Your task to perform on an android device: View the shopping cart on target. Add "sony triple a" to the cart on target Image 0: 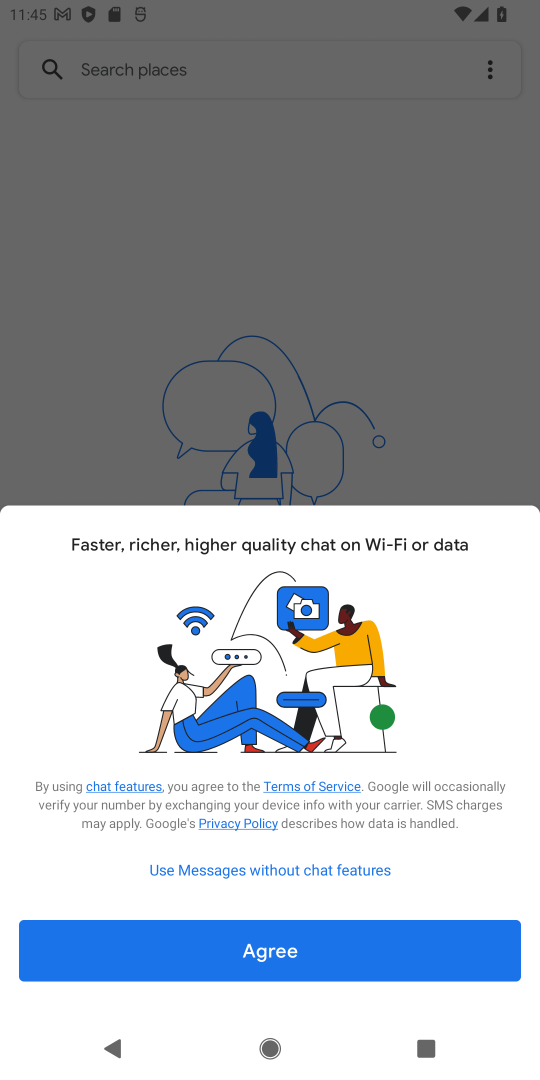
Step 0: press home button
Your task to perform on an android device: View the shopping cart on target. Add "sony triple a" to the cart on target Image 1: 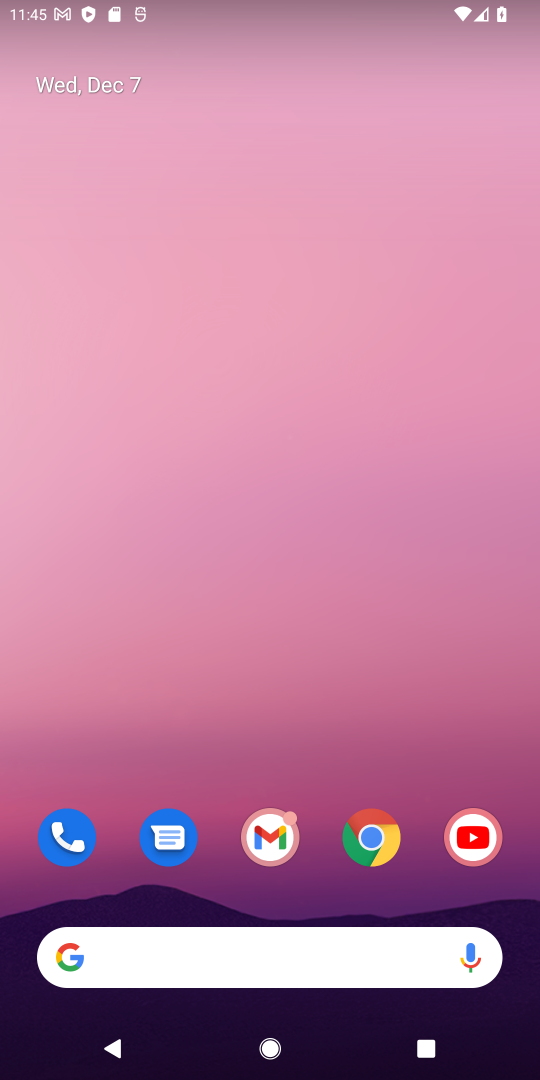
Step 1: click (358, 843)
Your task to perform on an android device: View the shopping cart on target. Add "sony triple a" to the cart on target Image 2: 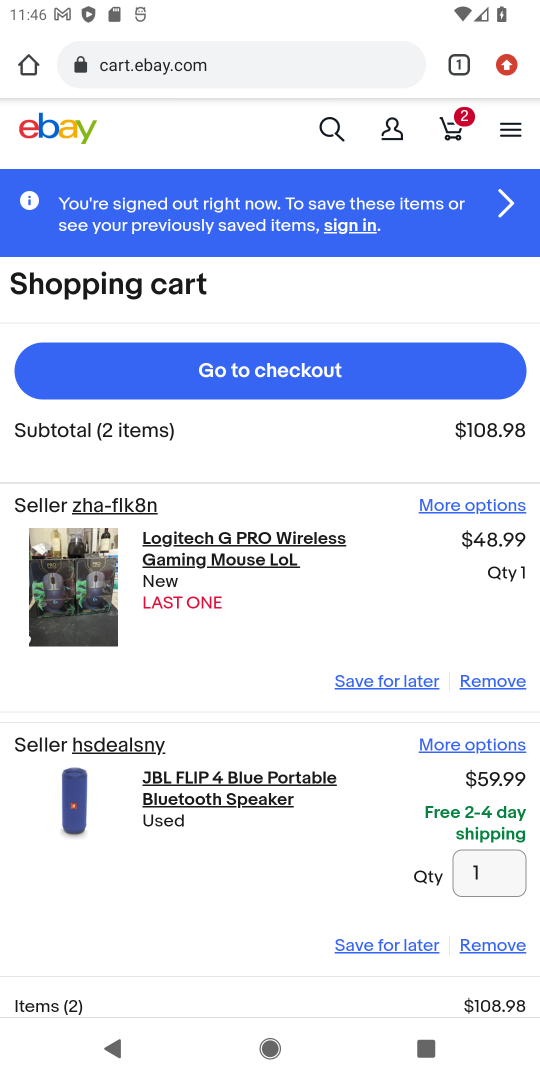
Step 2: click (275, 59)
Your task to perform on an android device: View the shopping cart on target. Add "sony triple a" to the cart on target Image 3: 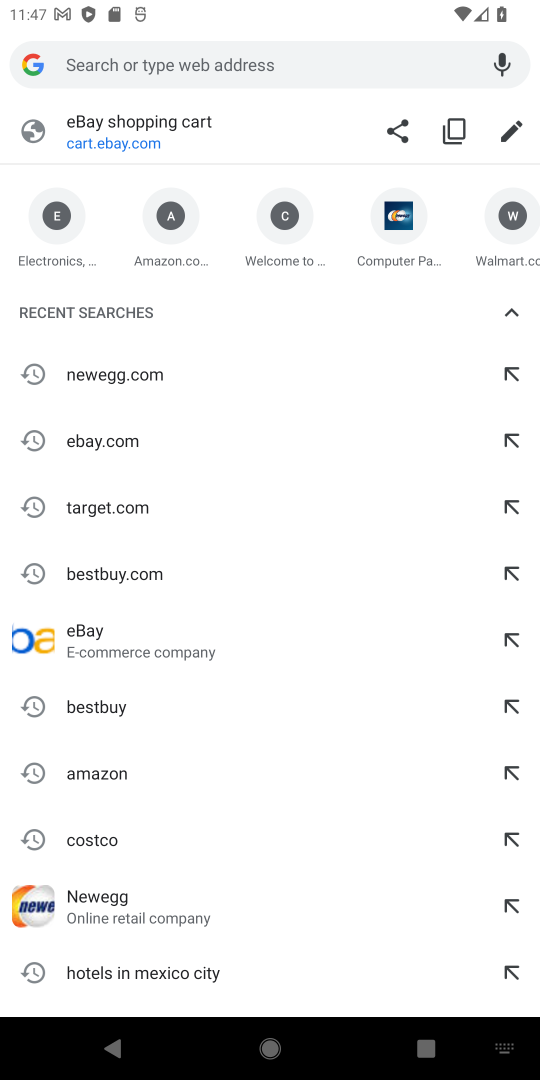
Step 3: click (89, 504)
Your task to perform on an android device: View the shopping cart on target. Add "sony triple a" to the cart on target Image 4: 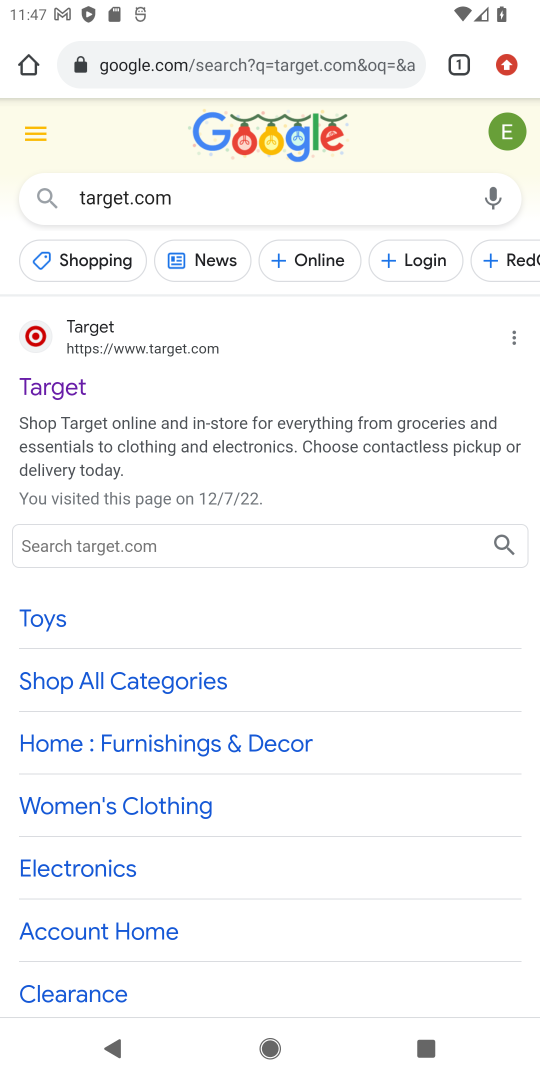
Step 4: drag from (156, 351) to (75, 344)
Your task to perform on an android device: View the shopping cart on target. Add "sony triple a" to the cart on target Image 5: 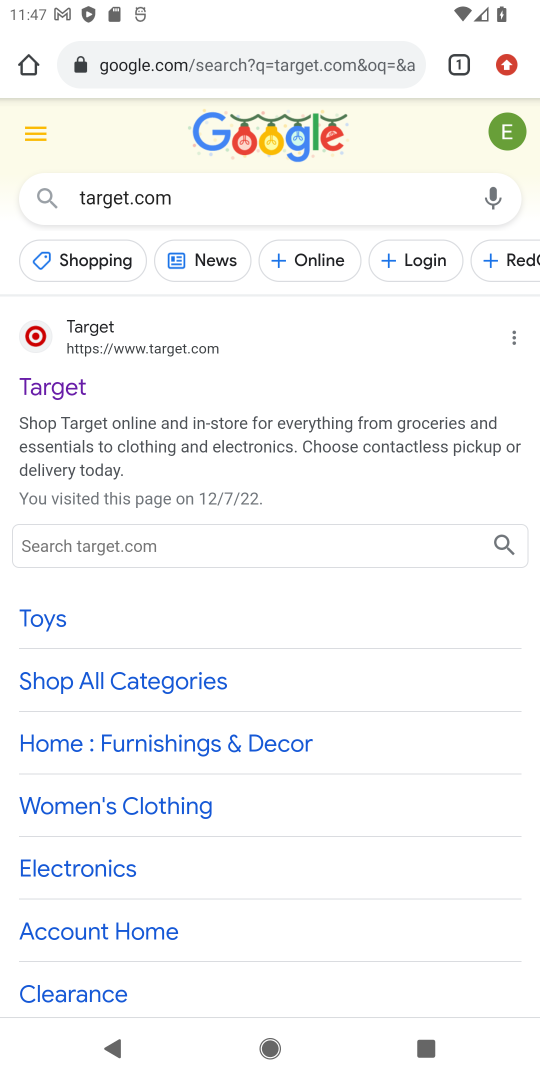
Step 5: click (170, 359)
Your task to perform on an android device: View the shopping cart on target. Add "sony triple a" to the cart on target Image 6: 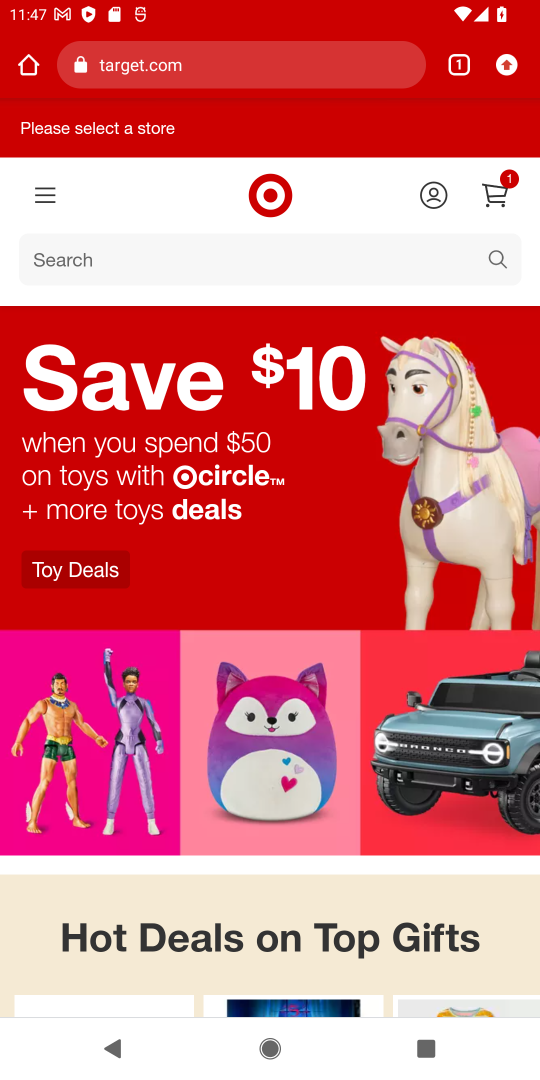
Step 6: click (505, 197)
Your task to perform on an android device: View the shopping cart on target. Add "sony triple a" to the cart on target Image 7: 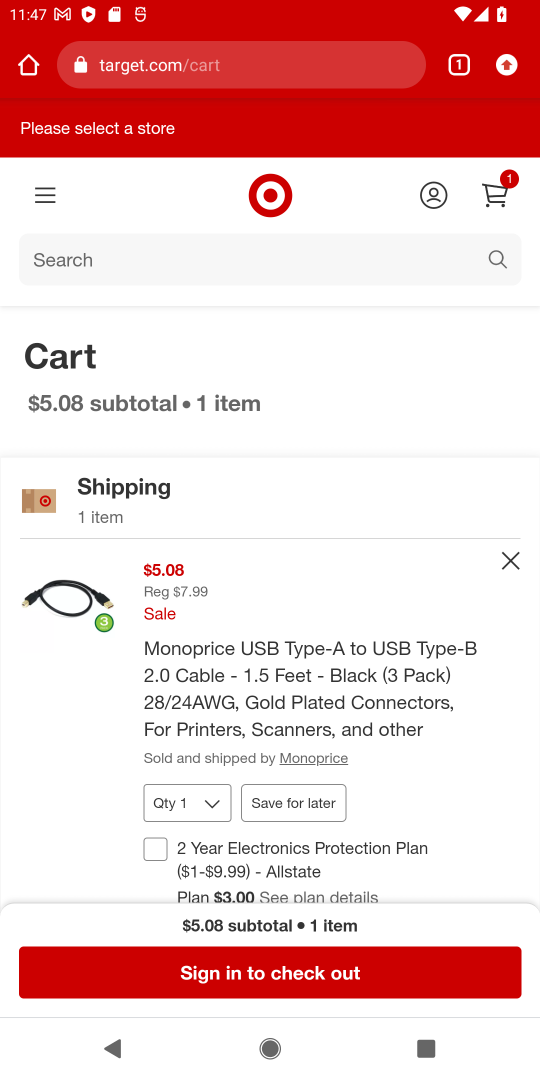
Step 7: click (496, 266)
Your task to perform on an android device: View the shopping cart on target. Add "sony triple a" to the cart on target Image 8: 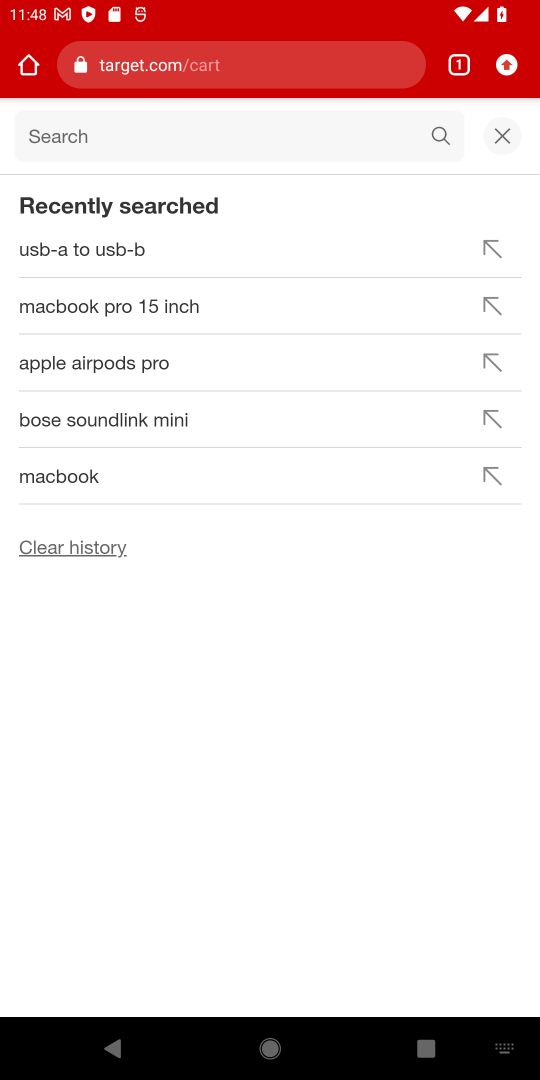
Step 8: type "sony triple a"
Your task to perform on an android device: View the shopping cart on target. Add "sony triple a" to the cart on target Image 9: 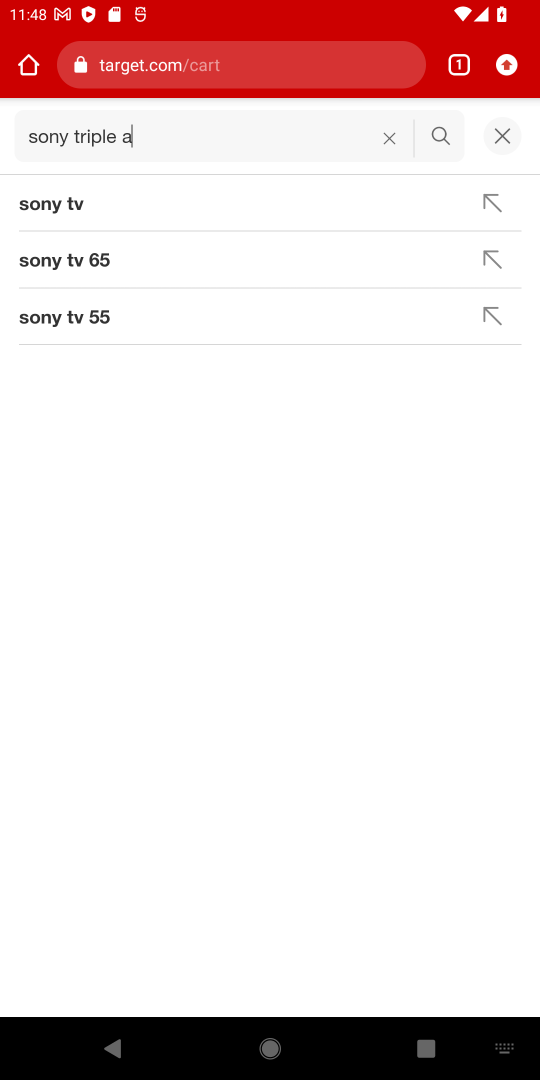
Step 9: click (435, 135)
Your task to perform on an android device: View the shopping cart on target. Add "sony triple a" to the cart on target Image 10: 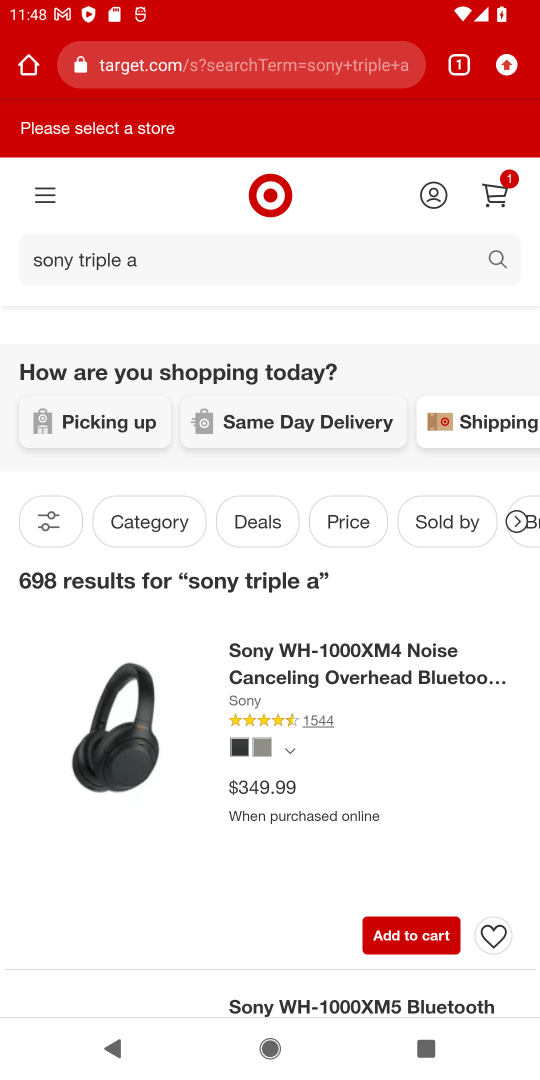
Step 10: task complete